Your task to perform on an android device: choose inbox layout in the gmail app Image 0: 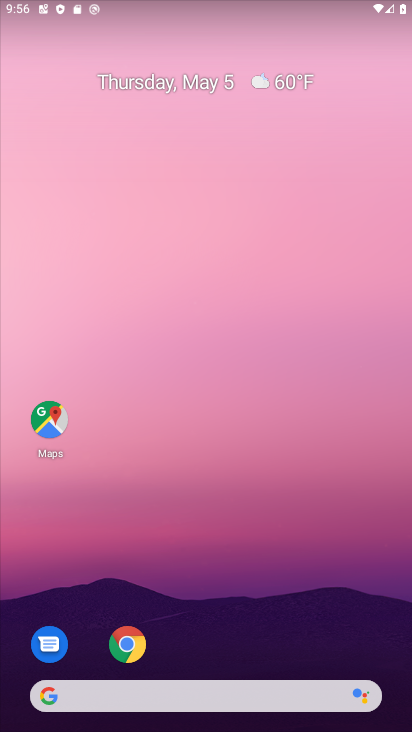
Step 0: drag from (239, 594) to (243, 84)
Your task to perform on an android device: choose inbox layout in the gmail app Image 1: 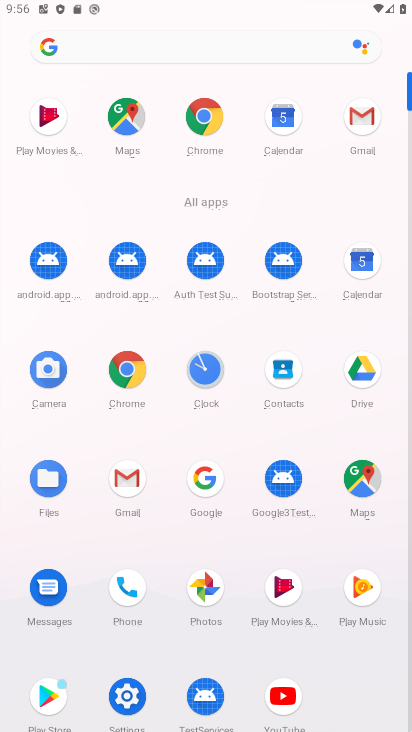
Step 1: click (364, 123)
Your task to perform on an android device: choose inbox layout in the gmail app Image 2: 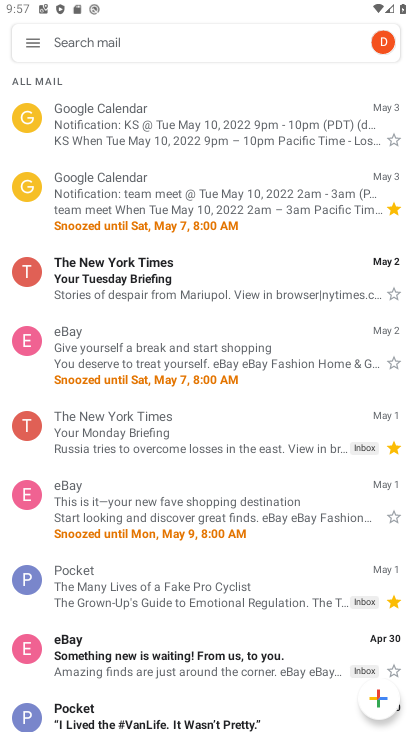
Step 2: click (32, 43)
Your task to perform on an android device: choose inbox layout in the gmail app Image 3: 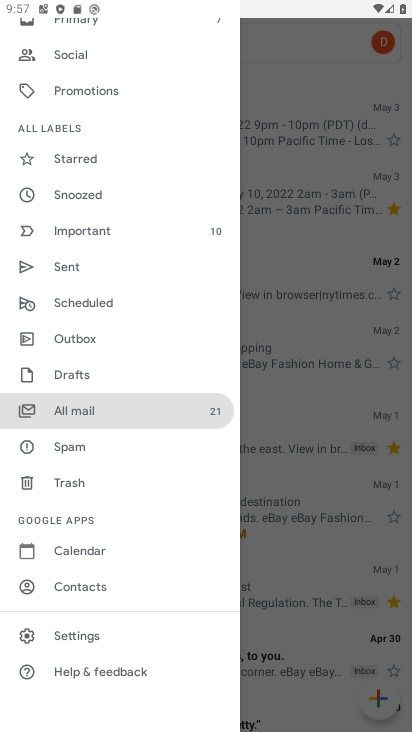
Step 3: drag from (119, 196) to (113, 535)
Your task to perform on an android device: choose inbox layout in the gmail app Image 4: 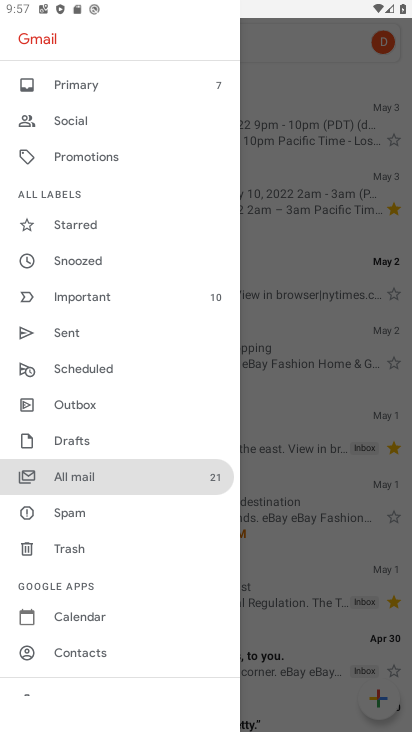
Step 4: click (115, 88)
Your task to perform on an android device: choose inbox layout in the gmail app Image 5: 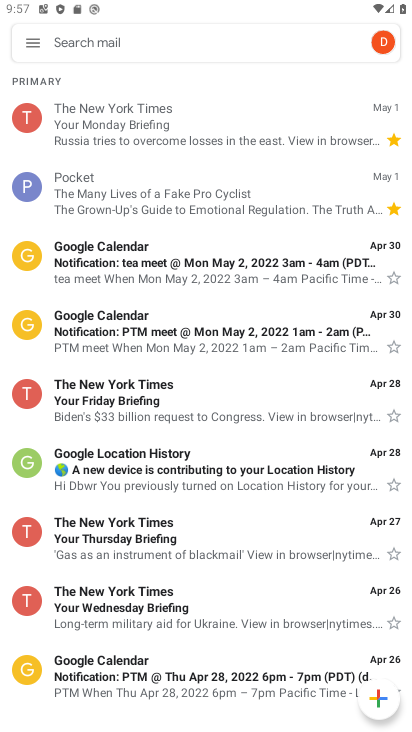
Step 5: task complete